Your task to perform on an android device: turn off notifications in google photos Image 0: 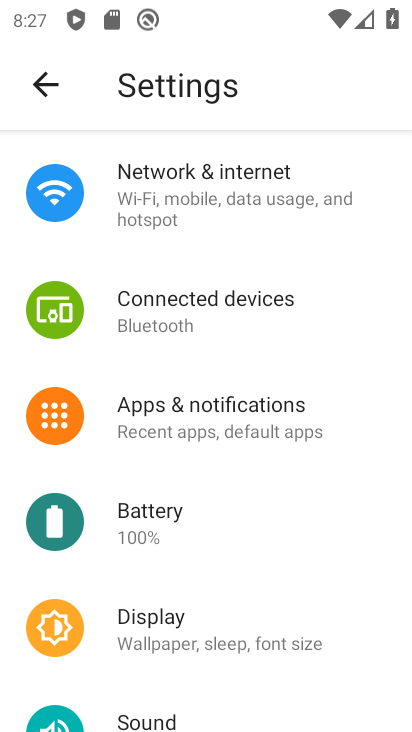
Step 0: press home button
Your task to perform on an android device: turn off notifications in google photos Image 1: 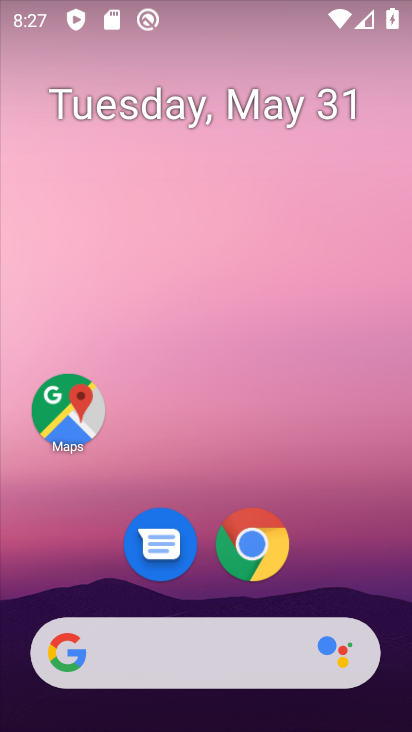
Step 1: drag from (327, 567) to (356, 3)
Your task to perform on an android device: turn off notifications in google photos Image 2: 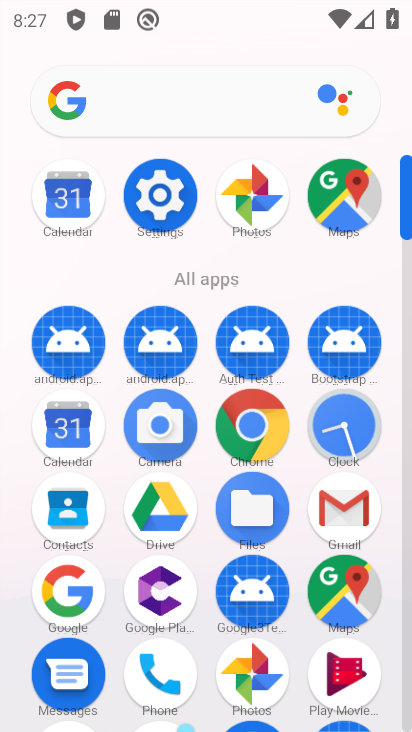
Step 2: click (254, 206)
Your task to perform on an android device: turn off notifications in google photos Image 3: 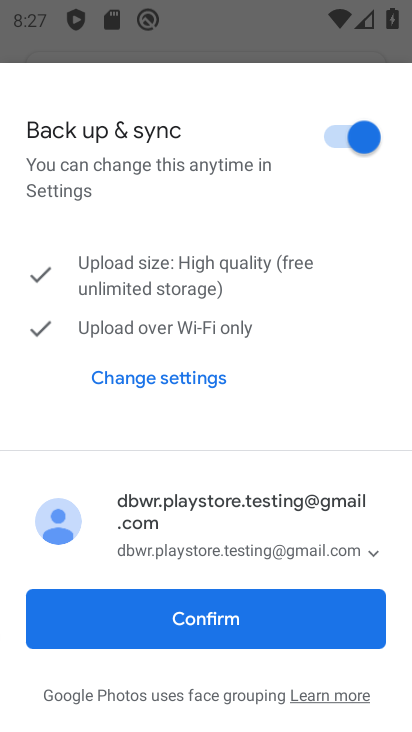
Step 3: click (245, 625)
Your task to perform on an android device: turn off notifications in google photos Image 4: 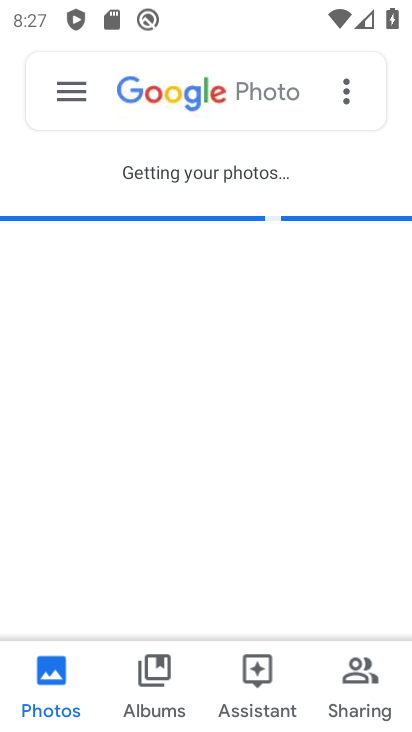
Step 4: click (78, 106)
Your task to perform on an android device: turn off notifications in google photos Image 5: 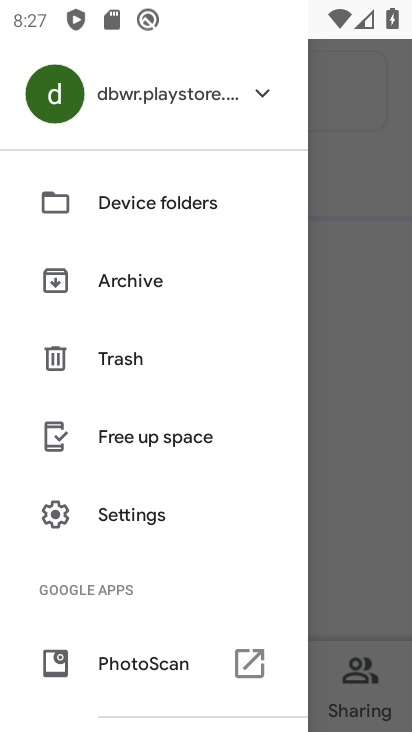
Step 5: click (178, 511)
Your task to perform on an android device: turn off notifications in google photos Image 6: 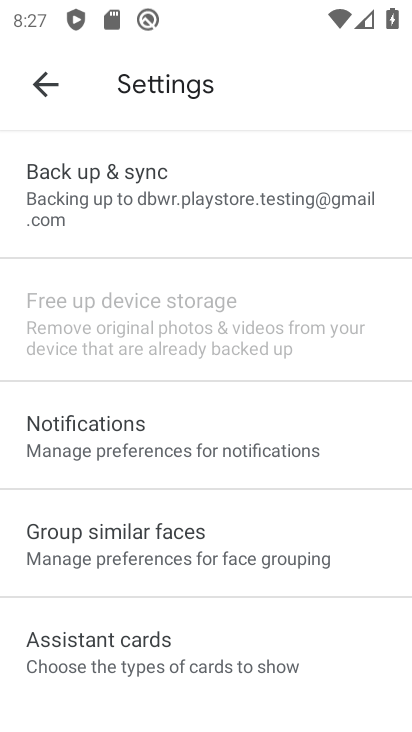
Step 6: click (164, 411)
Your task to perform on an android device: turn off notifications in google photos Image 7: 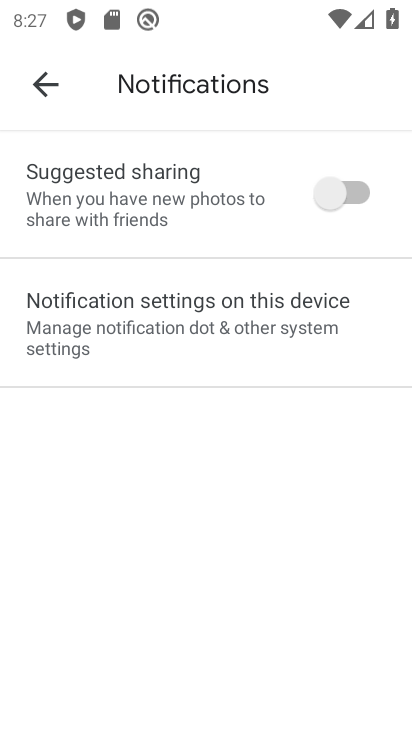
Step 7: click (231, 334)
Your task to perform on an android device: turn off notifications in google photos Image 8: 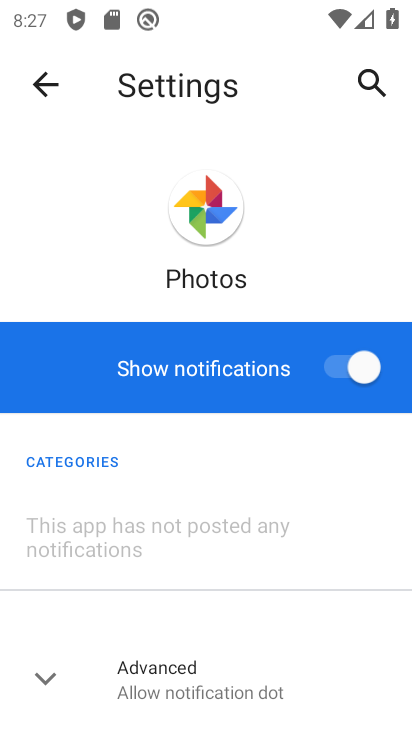
Step 8: click (287, 366)
Your task to perform on an android device: turn off notifications in google photos Image 9: 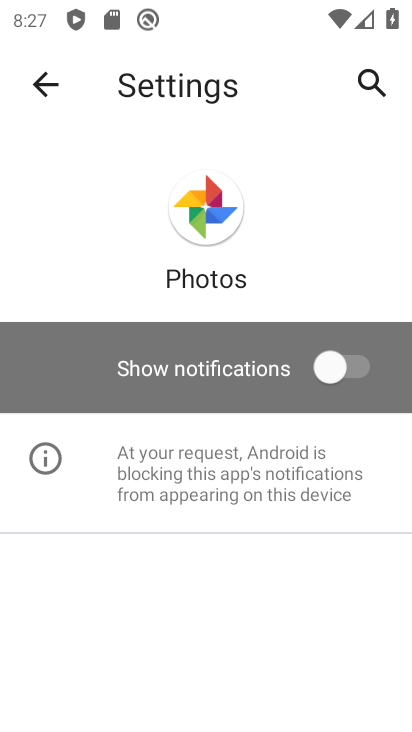
Step 9: task complete